Your task to perform on an android device: see sites visited before in the chrome app Image 0: 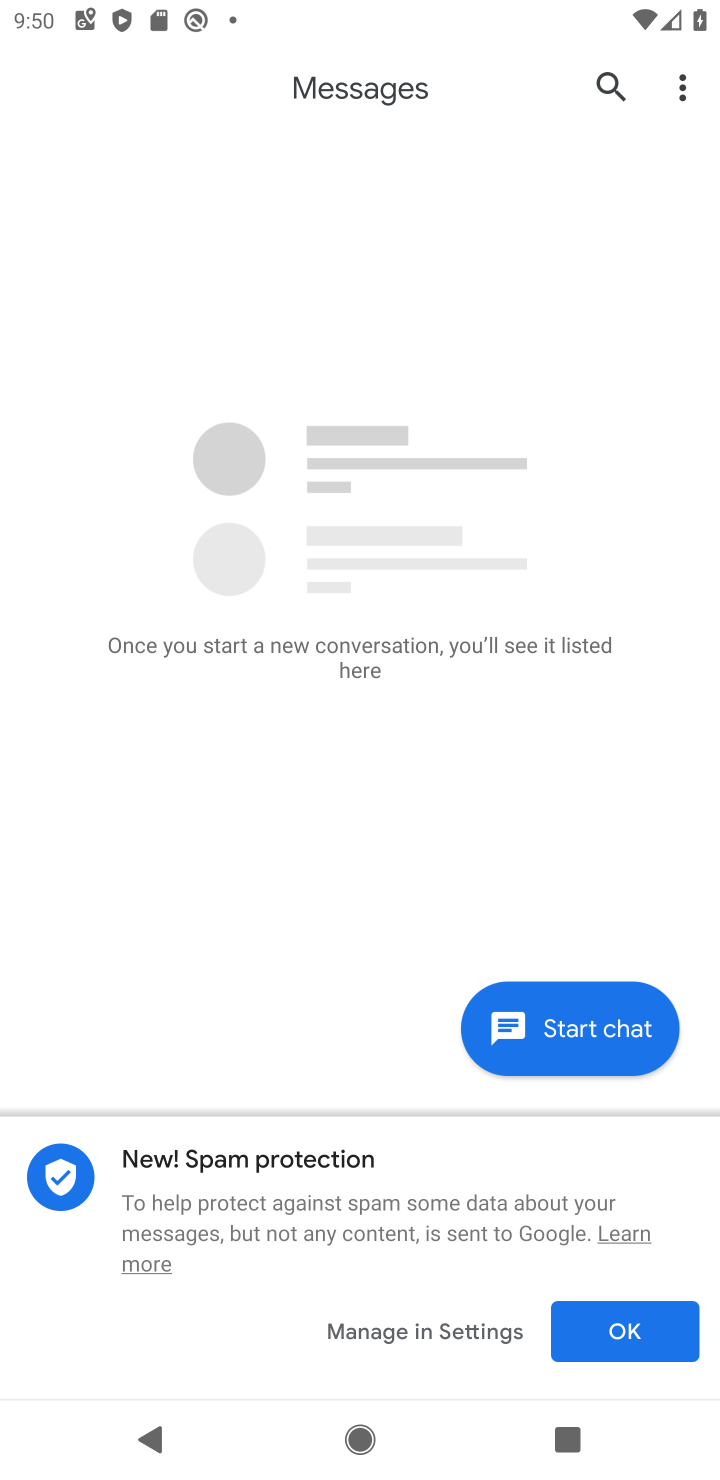
Step 0: press home button
Your task to perform on an android device: see sites visited before in the chrome app Image 1: 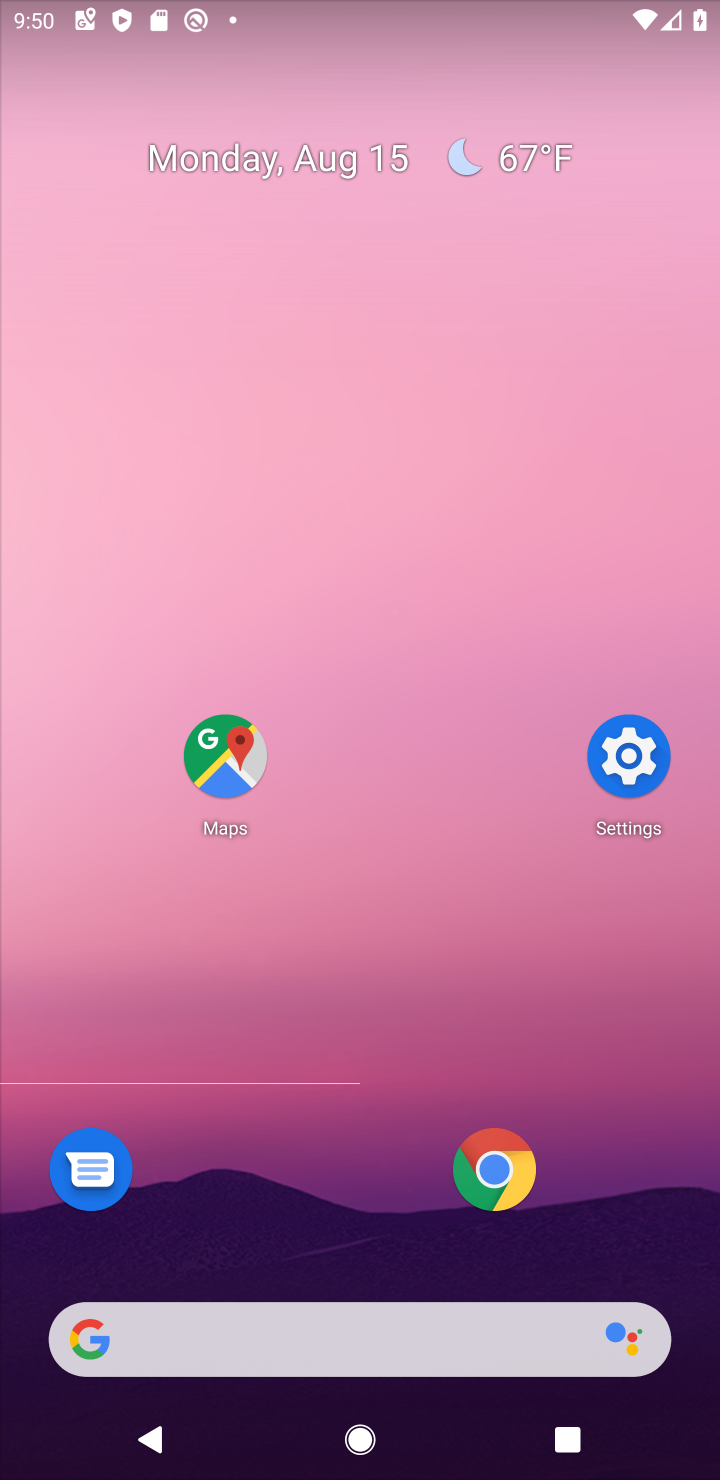
Step 1: click (497, 1175)
Your task to perform on an android device: see sites visited before in the chrome app Image 2: 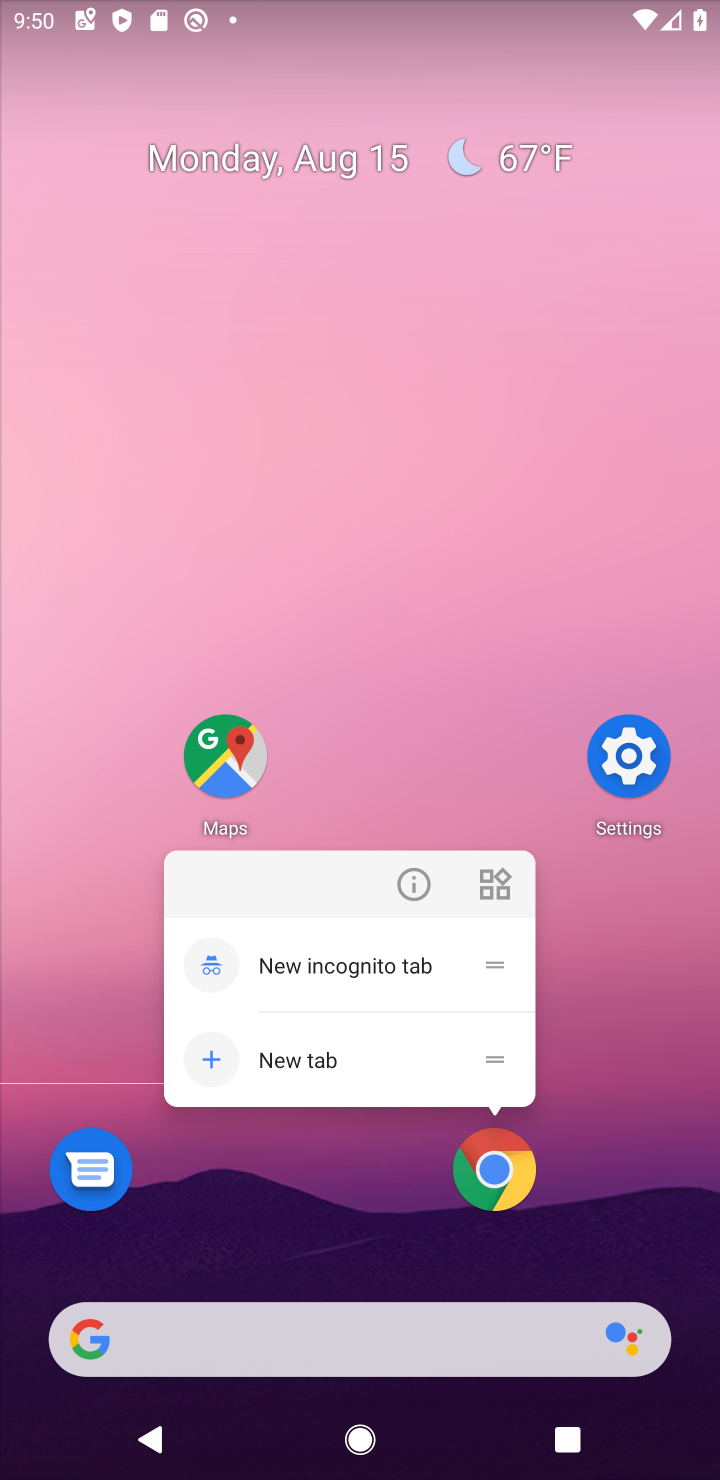
Step 2: click (497, 1176)
Your task to perform on an android device: see sites visited before in the chrome app Image 3: 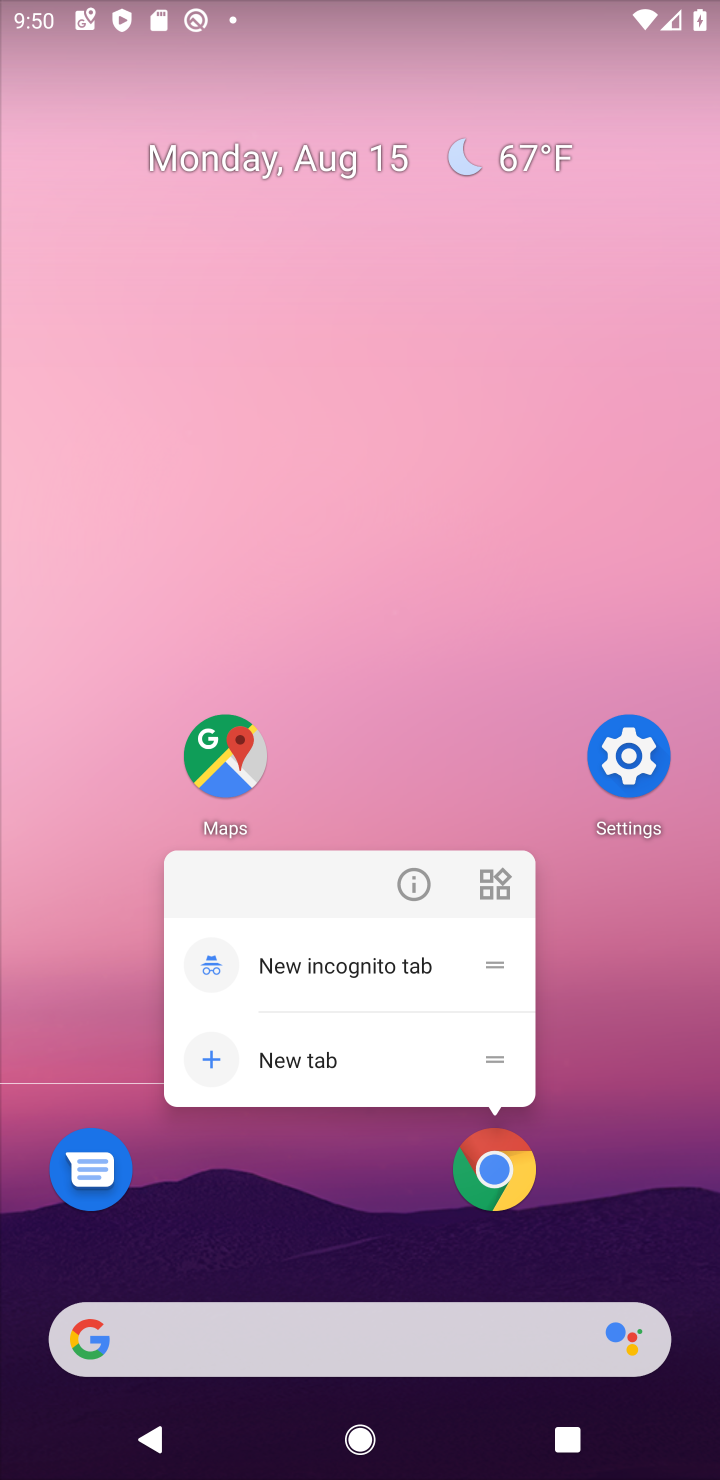
Step 3: click (497, 1175)
Your task to perform on an android device: see sites visited before in the chrome app Image 4: 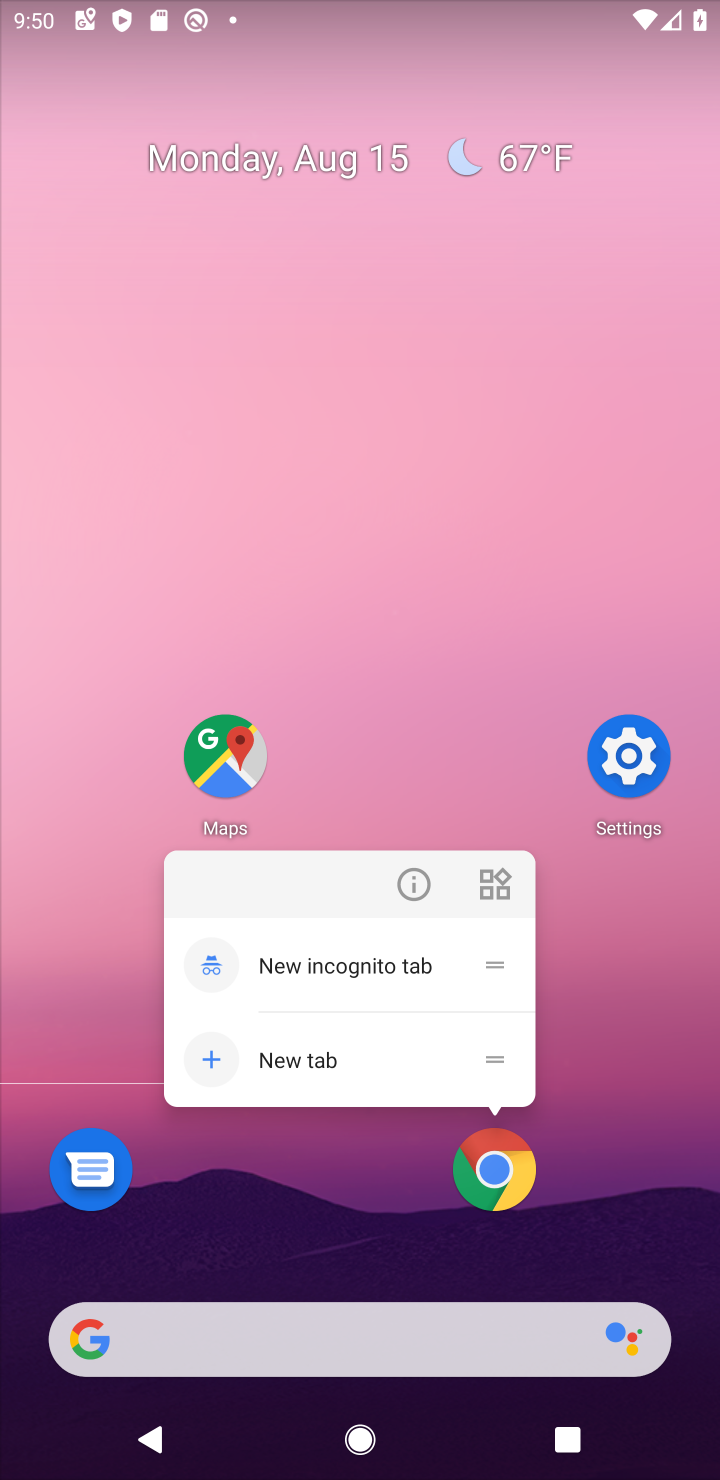
Step 4: click (497, 1183)
Your task to perform on an android device: see sites visited before in the chrome app Image 5: 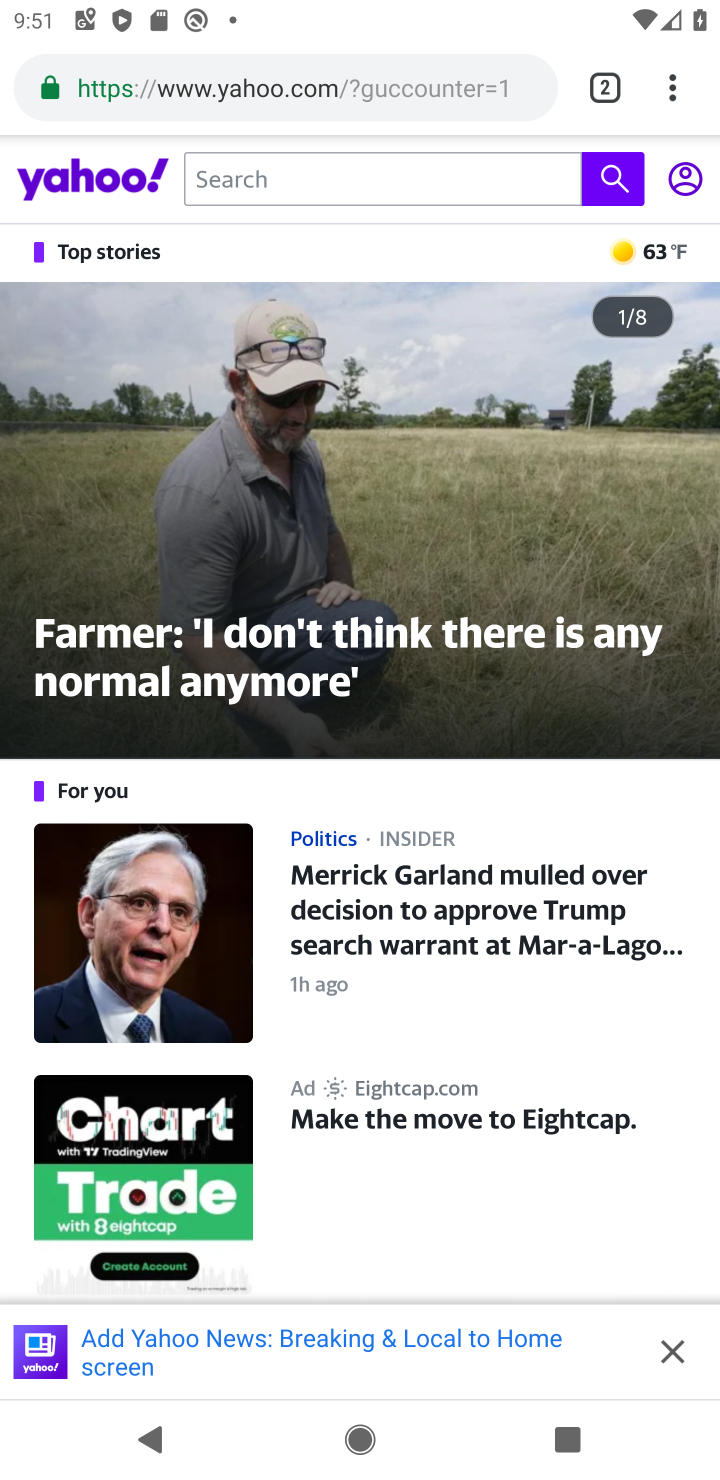
Step 5: task complete